Your task to perform on an android device: turn vacation reply on in the gmail app Image 0: 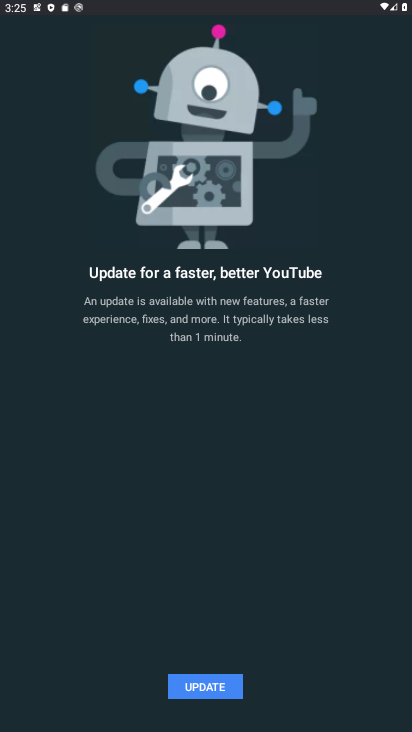
Step 0: press home button
Your task to perform on an android device: turn vacation reply on in the gmail app Image 1: 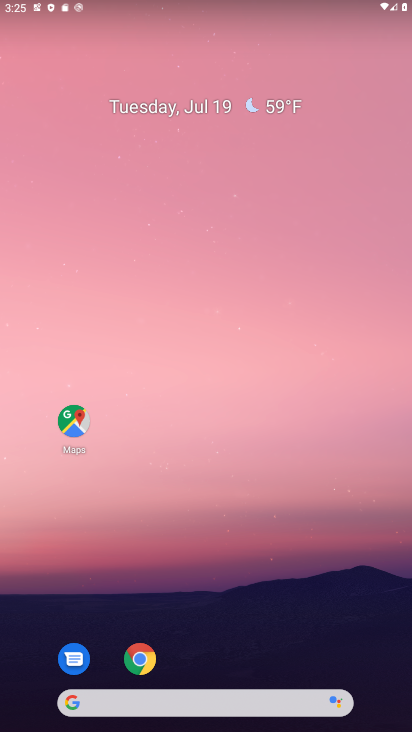
Step 1: drag from (187, 701) to (271, 160)
Your task to perform on an android device: turn vacation reply on in the gmail app Image 2: 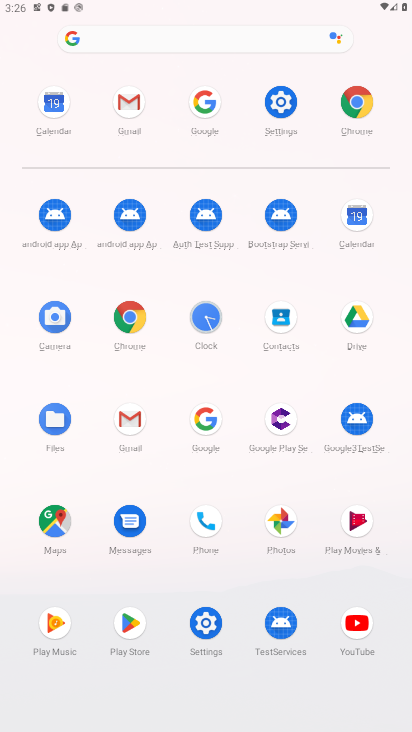
Step 2: click (128, 101)
Your task to perform on an android device: turn vacation reply on in the gmail app Image 3: 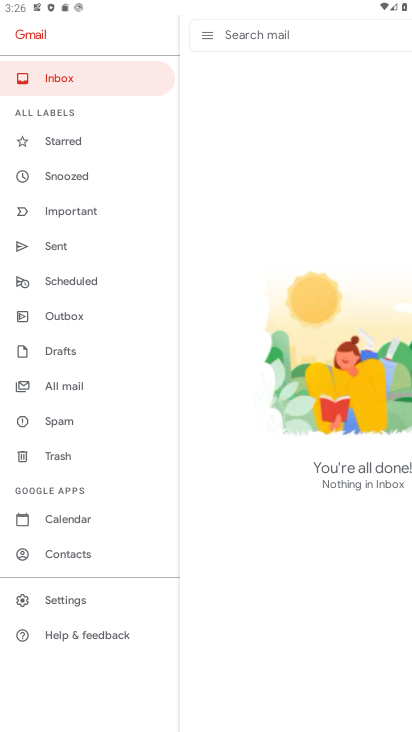
Step 3: click (65, 600)
Your task to perform on an android device: turn vacation reply on in the gmail app Image 4: 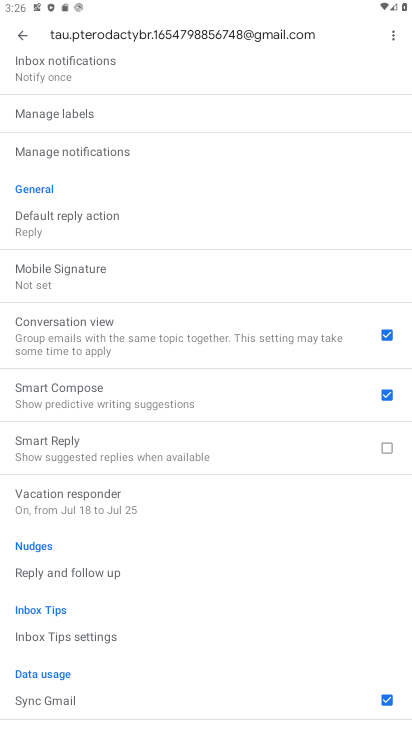
Step 4: click (111, 500)
Your task to perform on an android device: turn vacation reply on in the gmail app Image 5: 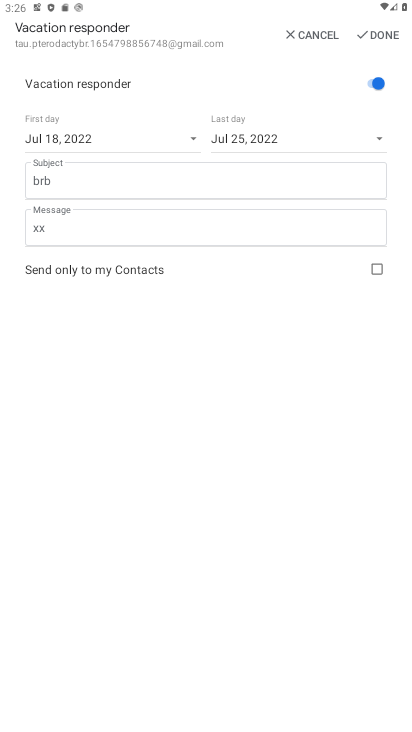
Step 5: task complete